Your task to perform on an android device: toggle improve location accuracy Image 0: 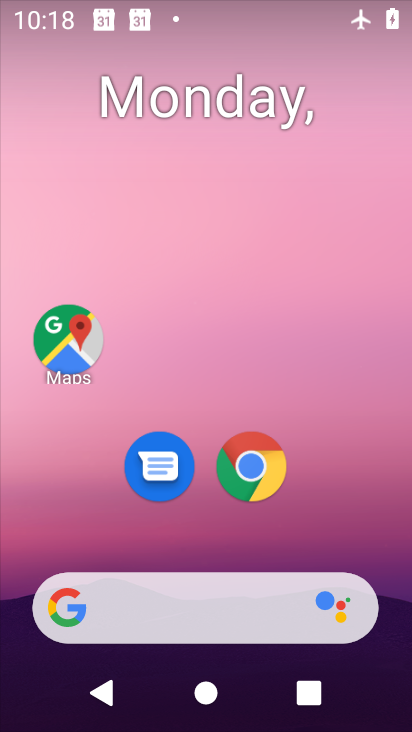
Step 0: drag from (350, 690) to (168, 302)
Your task to perform on an android device: toggle improve location accuracy Image 1: 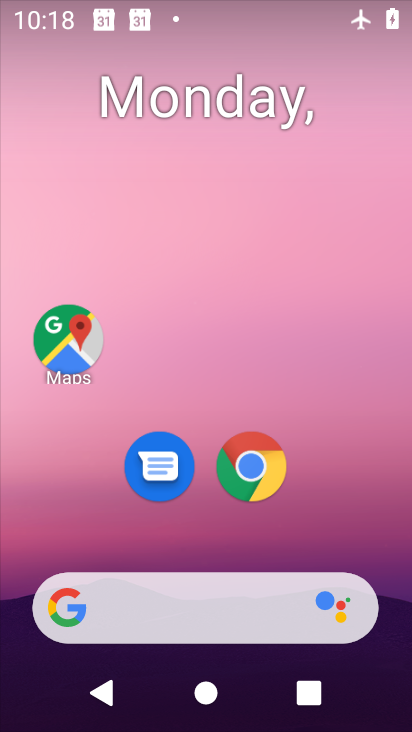
Step 1: drag from (331, 555) to (115, 91)
Your task to perform on an android device: toggle improve location accuracy Image 2: 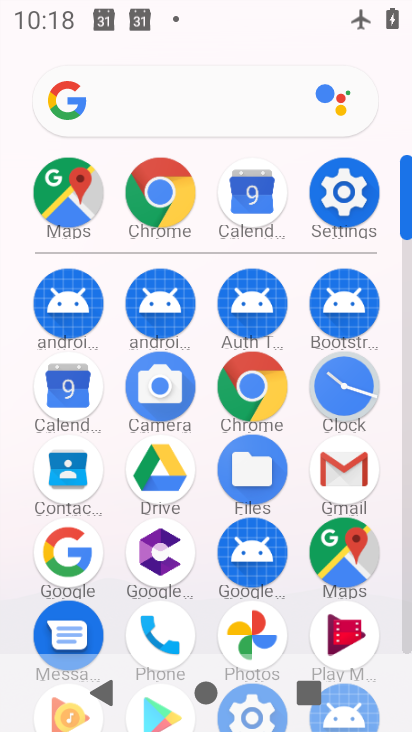
Step 2: click (335, 193)
Your task to perform on an android device: toggle improve location accuracy Image 3: 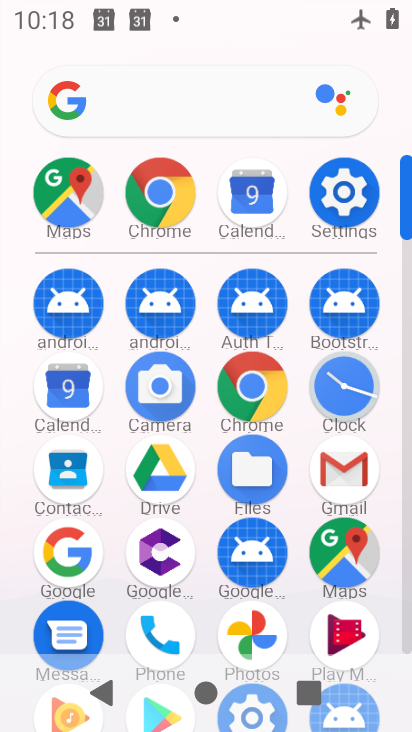
Step 3: click (335, 196)
Your task to perform on an android device: toggle improve location accuracy Image 4: 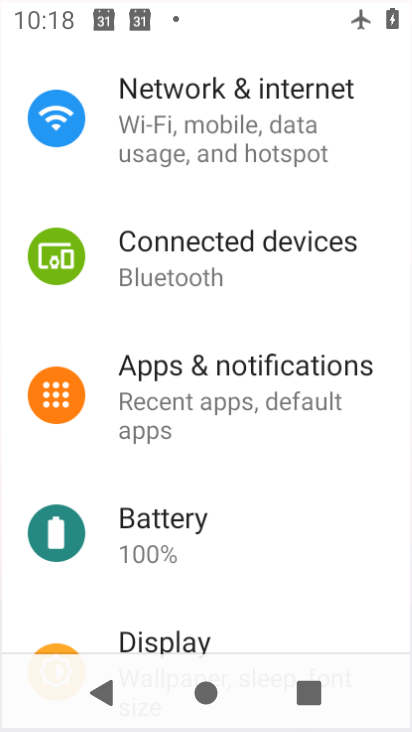
Step 4: click (335, 196)
Your task to perform on an android device: toggle improve location accuracy Image 5: 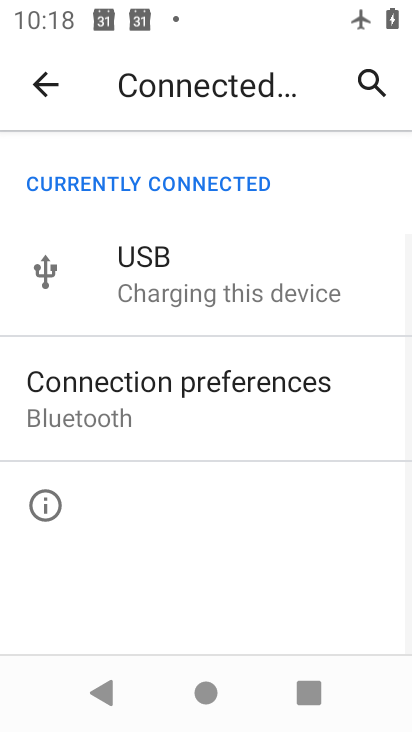
Step 5: click (44, 88)
Your task to perform on an android device: toggle improve location accuracy Image 6: 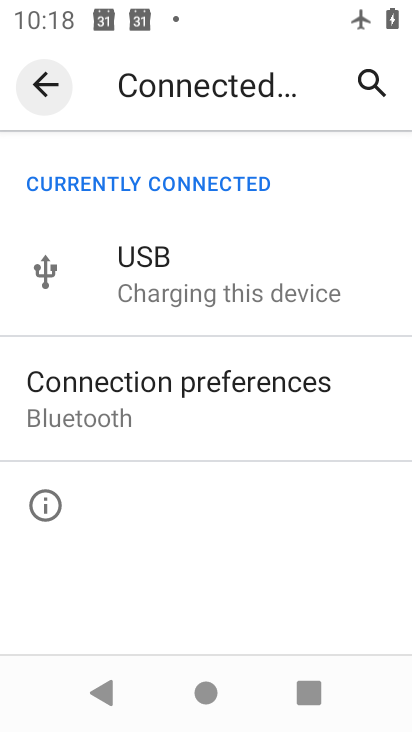
Step 6: click (44, 88)
Your task to perform on an android device: toggle improve location accuracy Image 7: 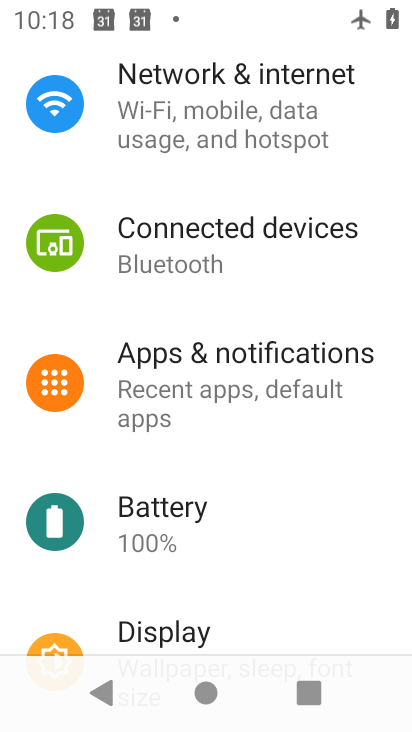
Step 7: drag from (148, 413) to (122, 220)
Your task to perform on an android device: toggle improve location accuracy Image 8: 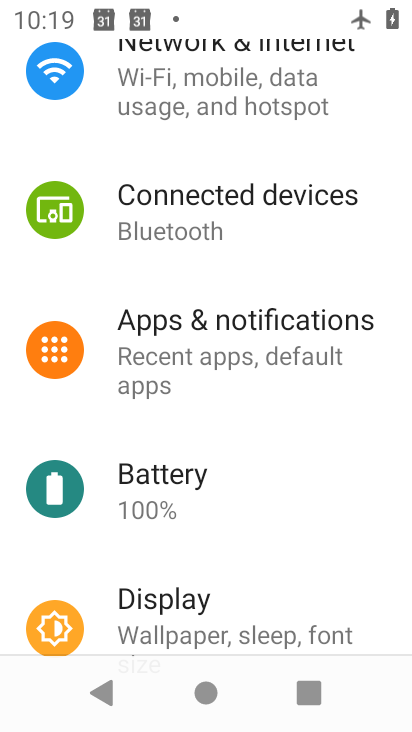
Step 8: drag from (232, 429) to (244, 153)
Your task to perform on an android device: toggle improve location accuracy Image 9: 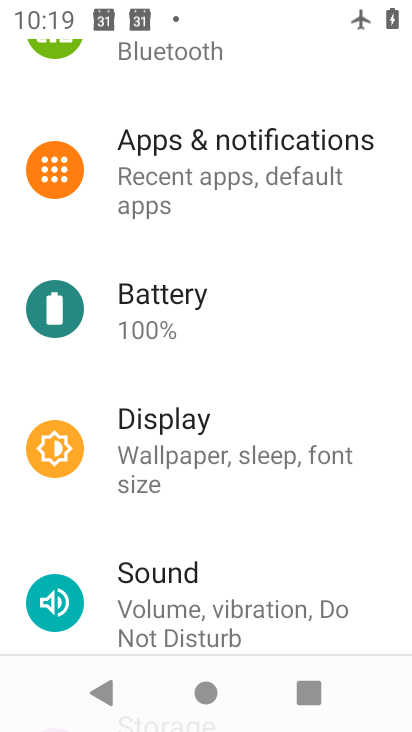
Step 9: drag from (258, 485) to (332, 75)
Your task to perform on an android device: toggle improve location accuracy Image 10: 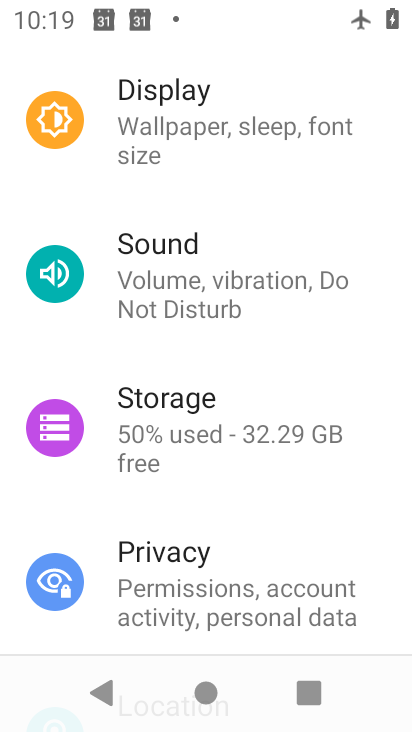
Step 10: drag from (259, 402) to (285, 139)
Your task to perform on an android device: toggle improve location accuracy Image 11: 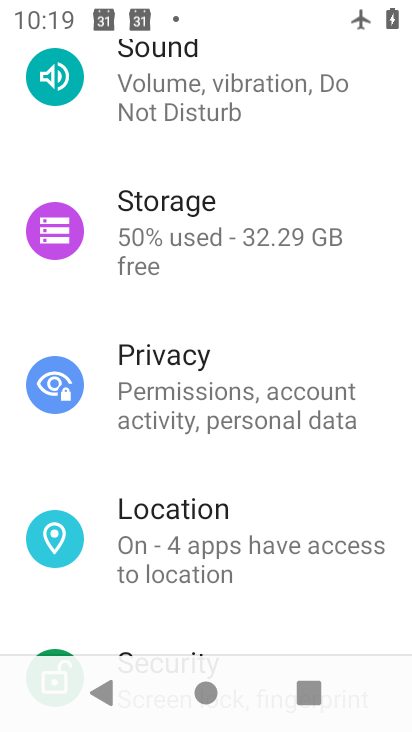
Step 11: drag from (307, 466) to (307, 208)
Your task to perform on an android device: toggle improve location accuracy Image 12: 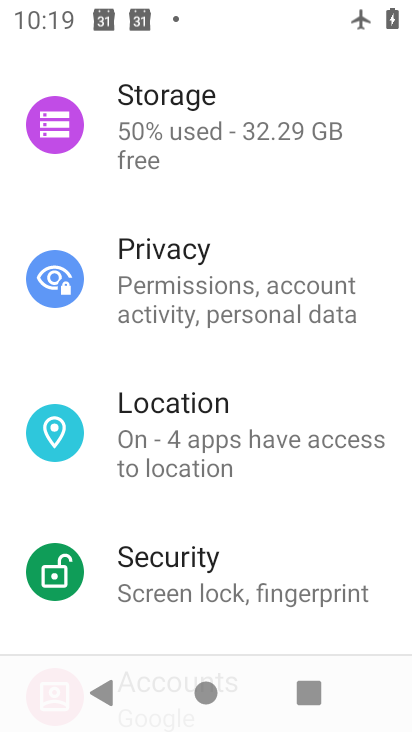
Step 12: click (207, 434)
Your task to perform on an android device: toggle improve location accuracy Image 13: 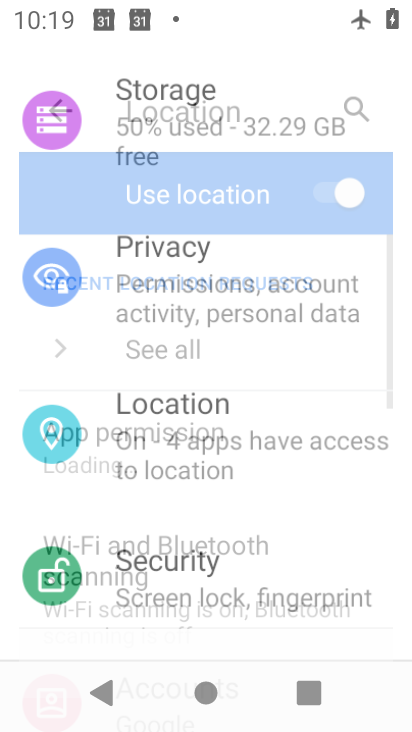
Step 13: click (207, 433)
Your task to perform on an android device: toggle improve location accuracy Image 14: 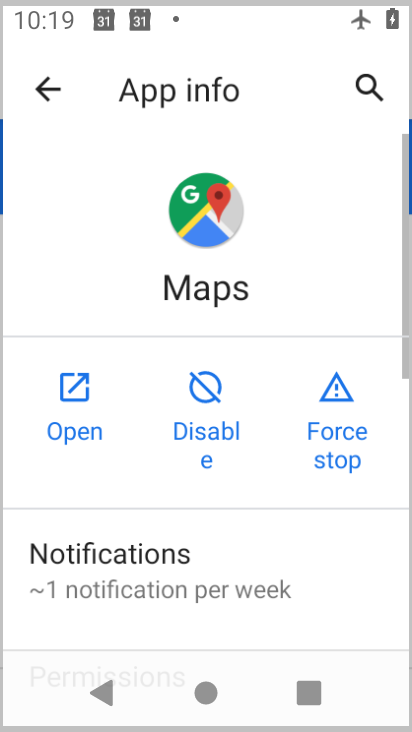
Step 14: drag from (255, 469) to (211, 188)
Your task to perform on an android device: toggle improve location accuracy Image 15: 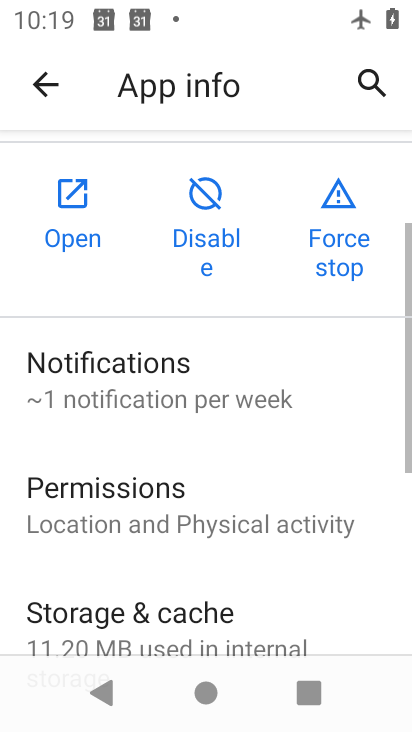
Step 15: click (39, 101)
Your task to perform on an android device: toggle improve location accuracy Image 16: 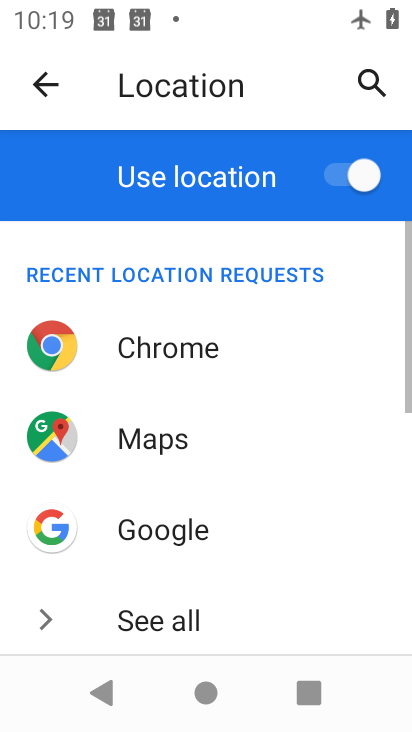
Step 16: click (363, 177)
Your task to perform on an android device: toggle improve location accuracy Image 17: 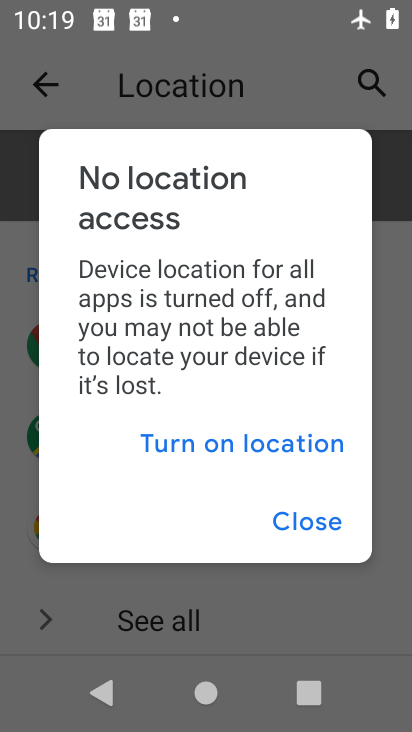
Step 17: click (288, 442)
Your task to perform on an android device: toggle improve location accuracy Image 18: 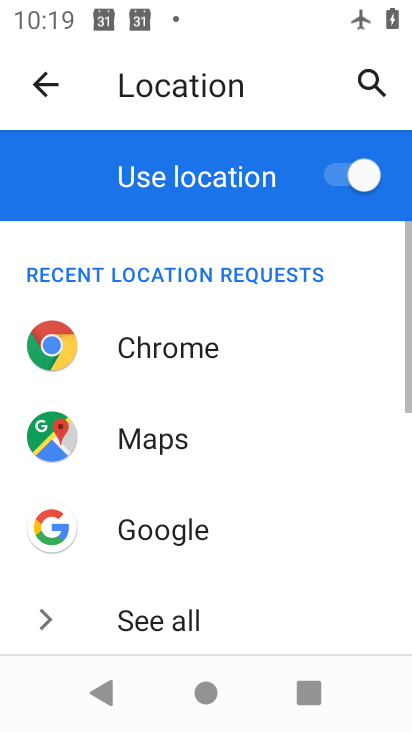
Step 18: drag from (244, 455) to (219, 241)
Your task to perform on an android device: toggle improve location accuracy Image 19: 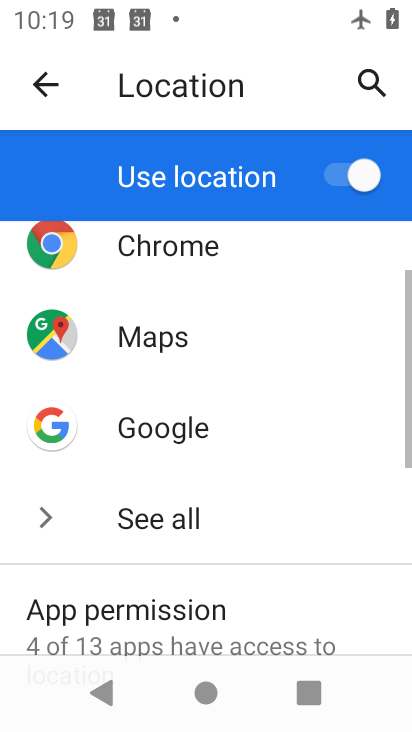
Step 19: drag from (234, 425) to (217, 124)
Your task to perform on an android device: toggle improve location accuracy Image 20: 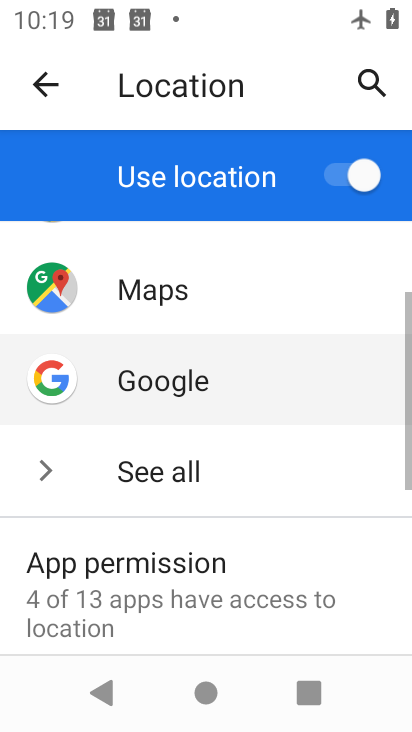
Step 20: drag from (205, 427) to (177, 141)
Your task to perform on an android device: toggle improve location accuracy Image 21: 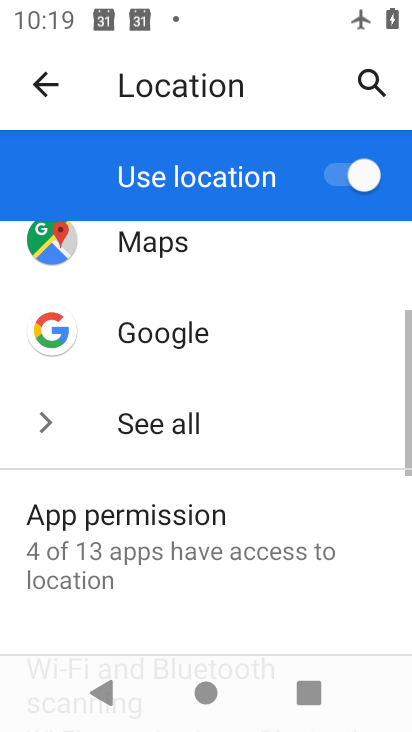
Step 21: drag from (201, 437) to (192, 123)
Your task to perform on an android device: toggle improve location accuracy Image 22: 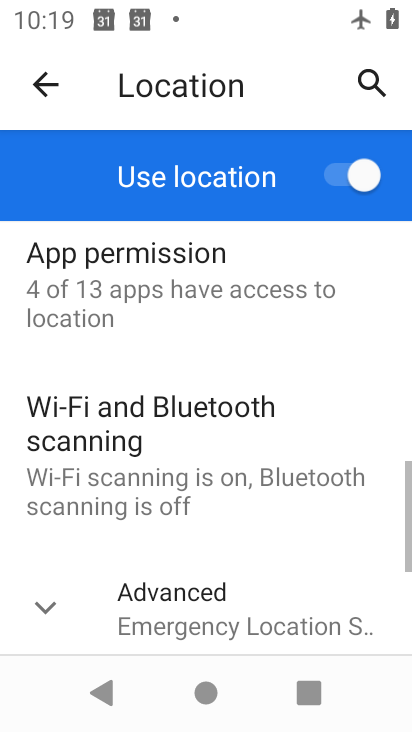
Step 22: drag from (202, 485) to (194, 144)
Your task to perform on an android device: toggle improve location accuracy Image 23: 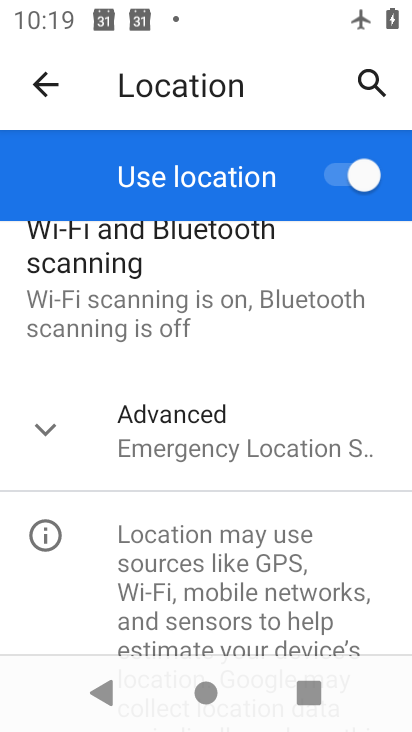
Step 23: drag from (182, 335) to (224, 513)
Your task to perform on an android device: toggle improve location accuracy Image 24: 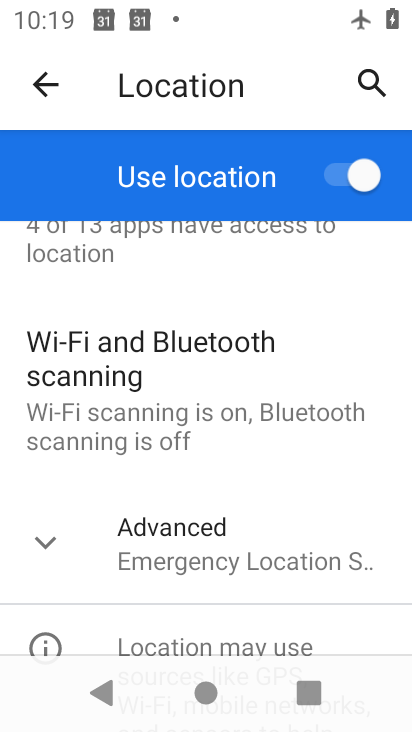
Step 24: click (171, 552)
Your task to perform on an android device: toggle improve location accuracy Image 25: 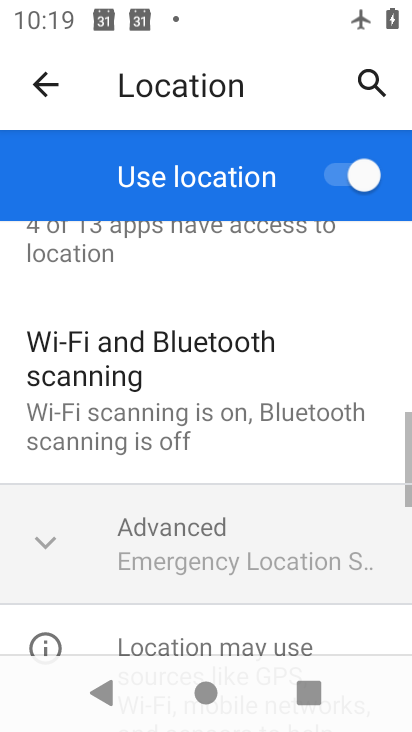
Step 25: click (171, 552)
Your task to perform on an android device: toggle improve location accuracy Image 26: 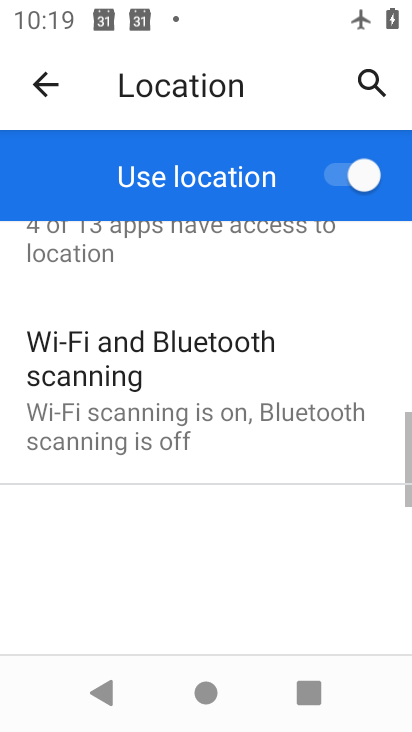
Step 26: click (171, 552)
Your task to perform on an android device: toggle improve location accuracy Image 27: 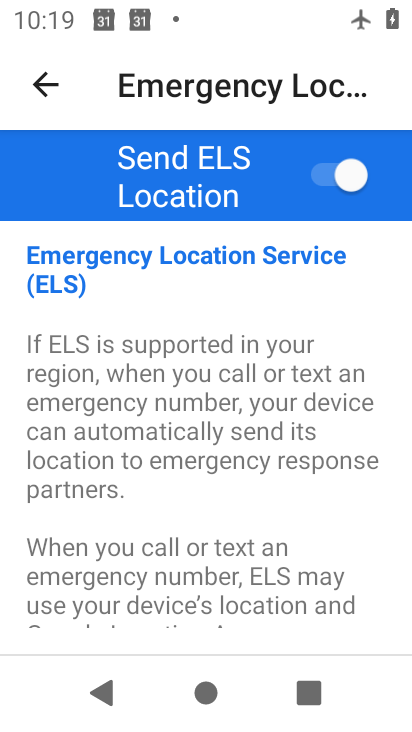
Step 27: click (171, 552)
Your task to perform on an android device: toggle improve location accuracy Image 28: 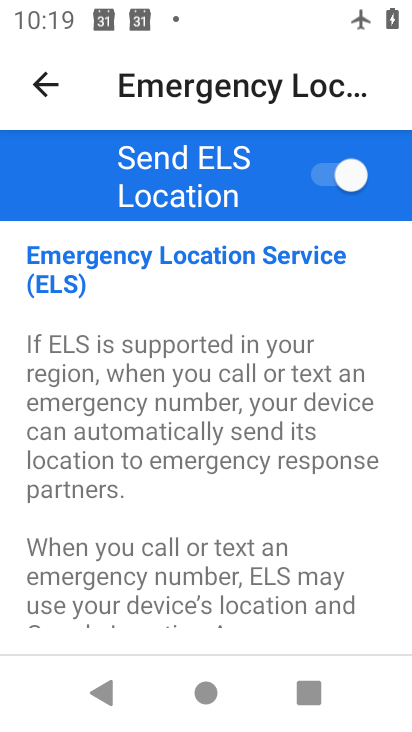
Step 28: click (48, 88)
Your task to perform on an android device: toggle improve location accuracy Image 29: 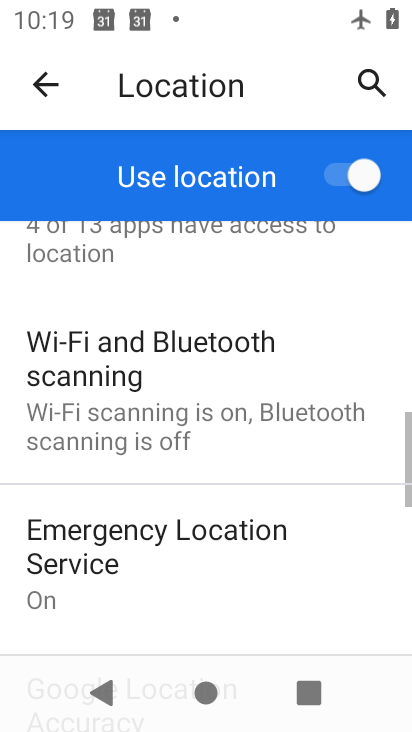
Step 29: drag from (164, 505) to (176, 236)
Your task to perform on an android device: toggle improve location accuracy Image 30: 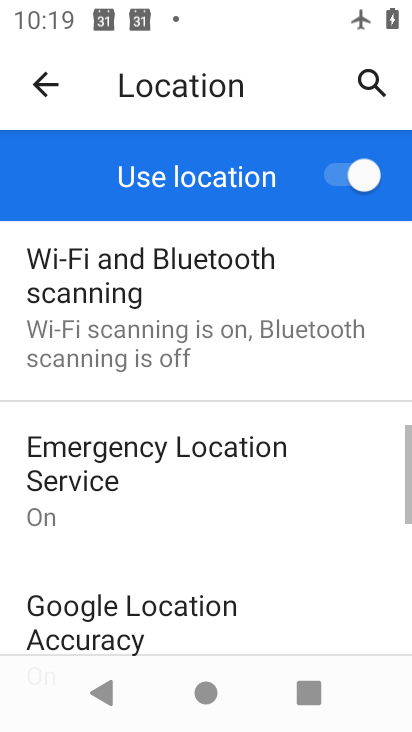
Step 30: drag from (161, 441) to (107, 179)
Your task to perform on an android device: toggle improve location accuracy Image 31: 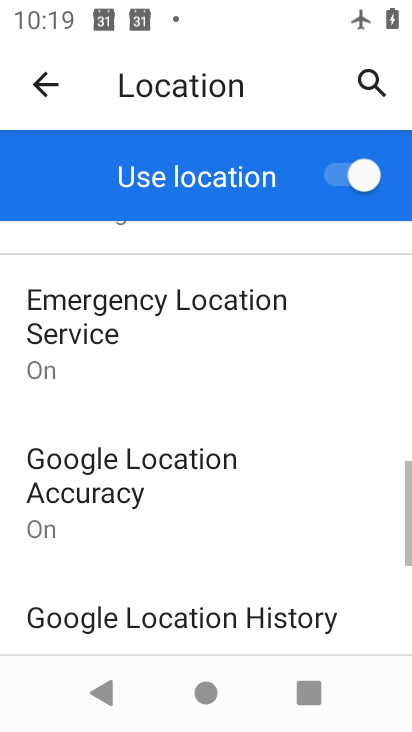
Step 31: drag from (193, 465) to (175, 74)
Your task to perform on an android device: toggle improve location accuracy Image 32: 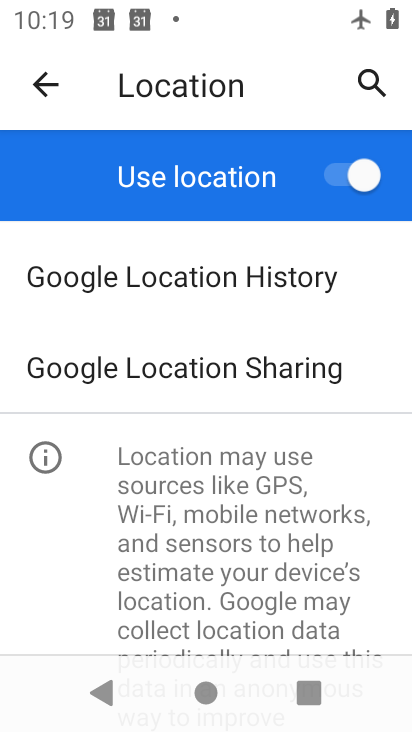
Step 32: drag from (157, 301) to (210, 587)
Your task to perform on an android device: toggle improve location accuracy Image 33: 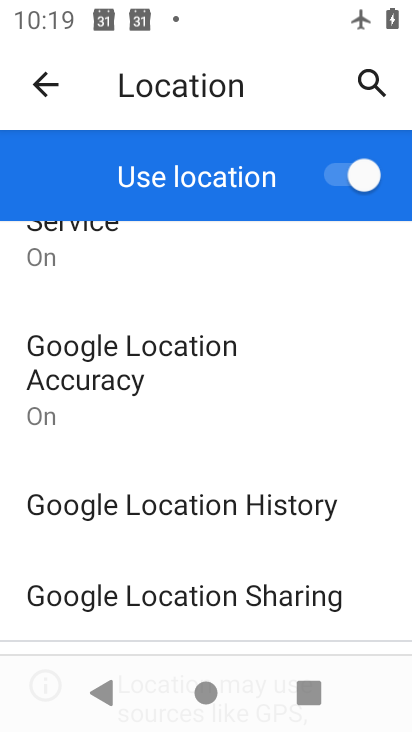
Step 33: click (137, 379)
Your task to perform on an android device: toggle improve location accuracy Image 34: 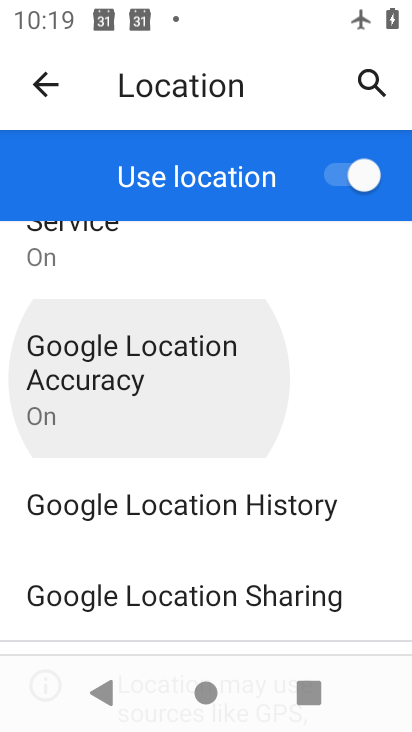
Step 34: click (137, 379)
Your task to perform on an android device: toggle improve location accuracy Image 35: 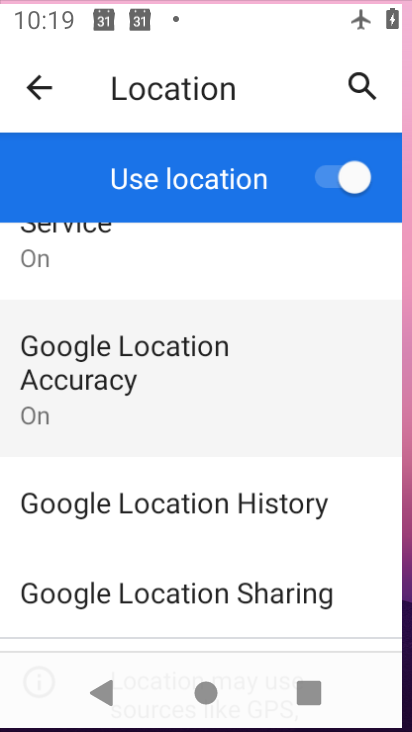
Step 35: click (127, 372)
Your task to perform on an android device: toggle improve location accuracy Image 36: 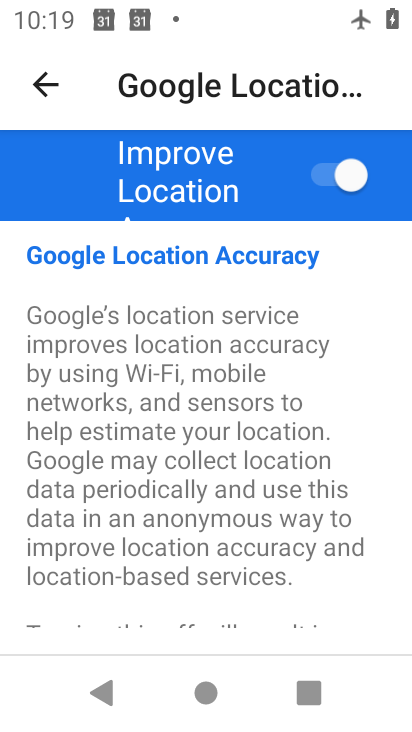
Step 36: click (341, 163)
Your task to perform on an android device: toggle improve location accuracy Image 37: 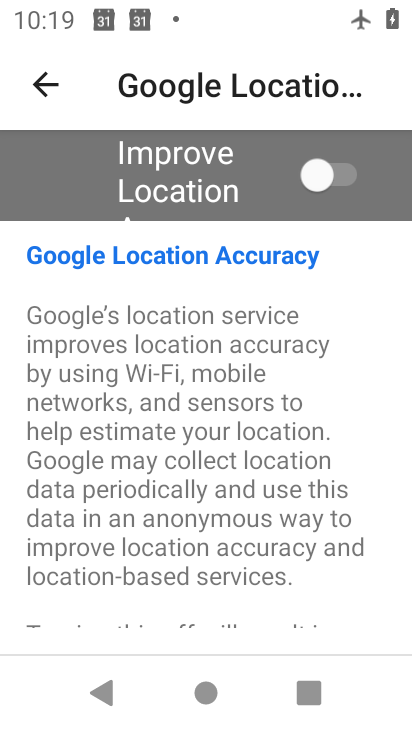
Step 37: task complete